Your task to perform on an android device: Open Maps and search for coffee Image 0: 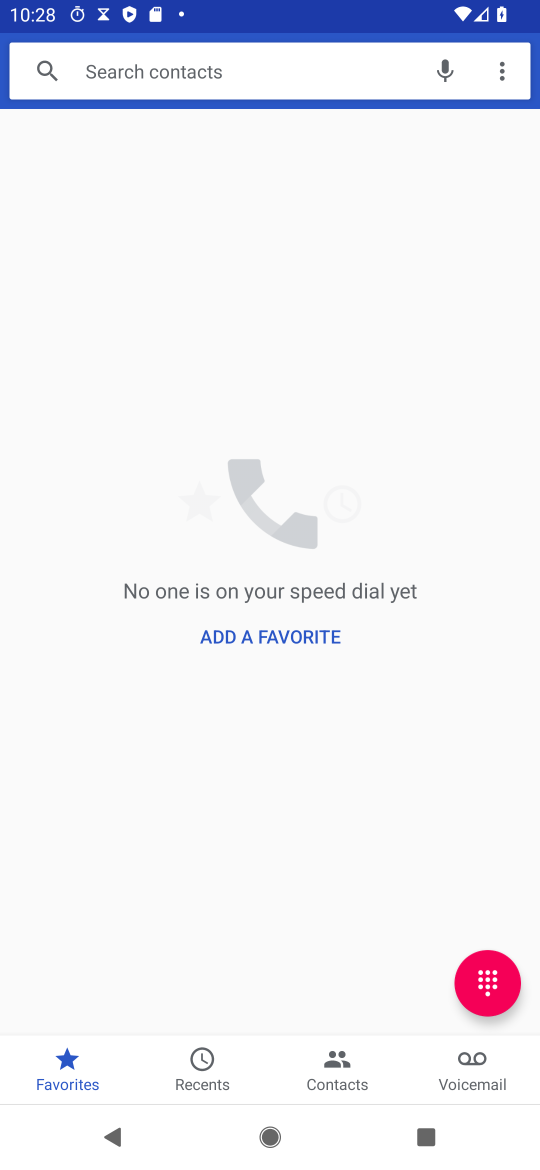
Step 0: press back button
Your task to perform on an android device: Open Maps and search for coffee Image 1: 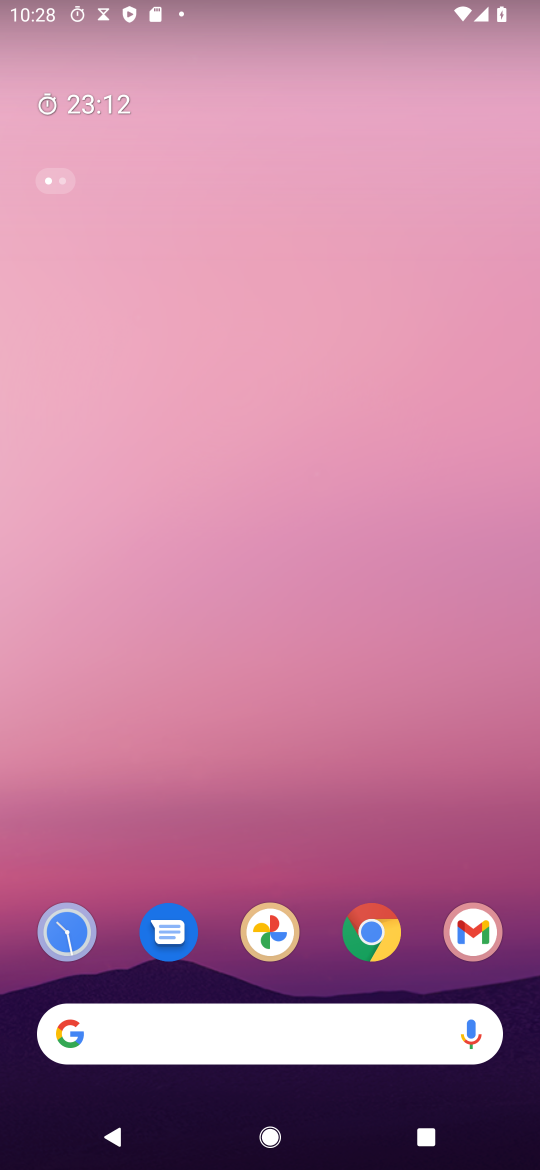
Step 1: drag from (297, 875) to (293, 14)
Your task to perform on an android device: Open Maps and search for coffee Image 2: 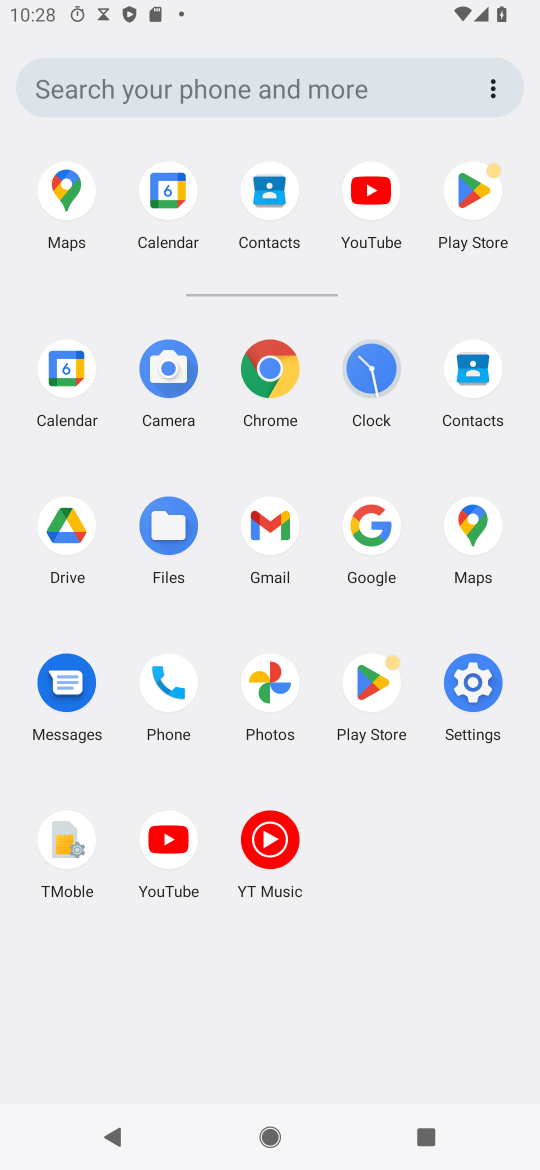
Step 2: click (75, 187)
Your task to perform on an android device: Open Maps and search for coffee Image 3: 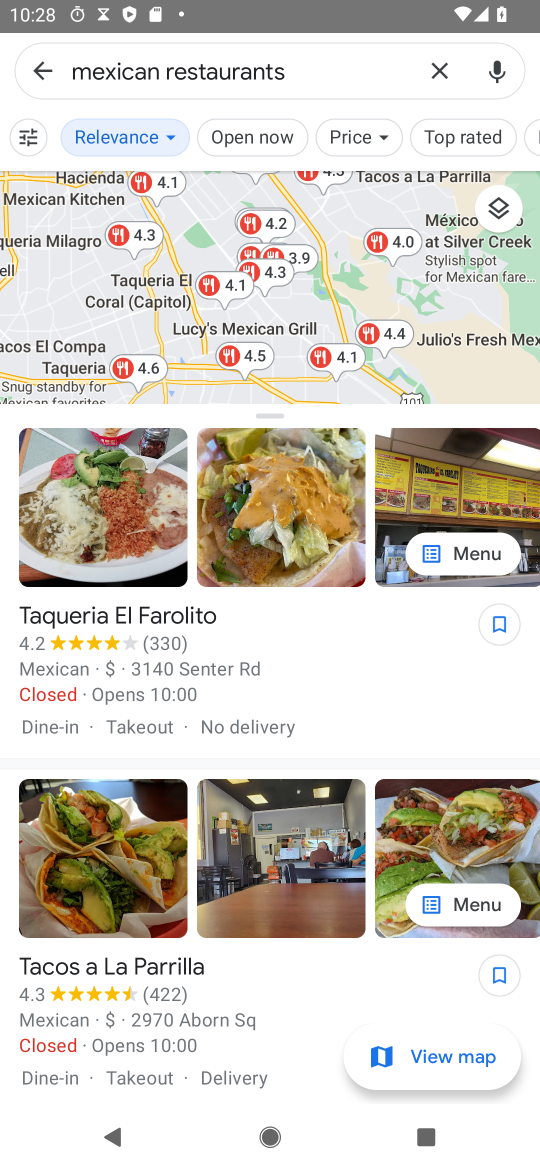
Step 3: click (442, 65)
Your task to perform on an android device: Open Maps and search for coffee Image 4: 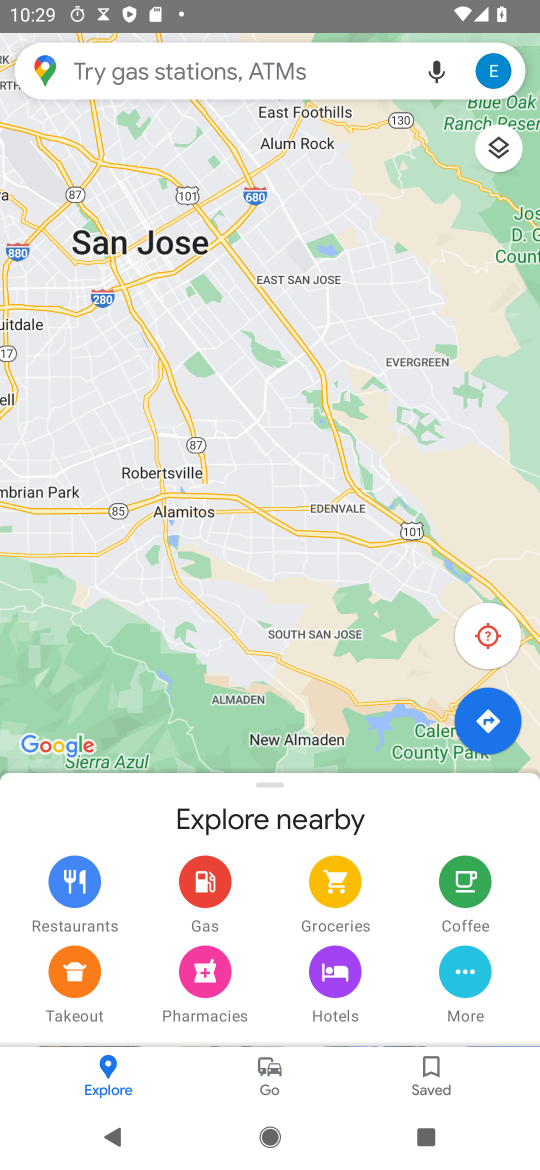
Step 4: click (206, 82)
Your task to perform on an android device: Open Maps and search for coffee Image 5: 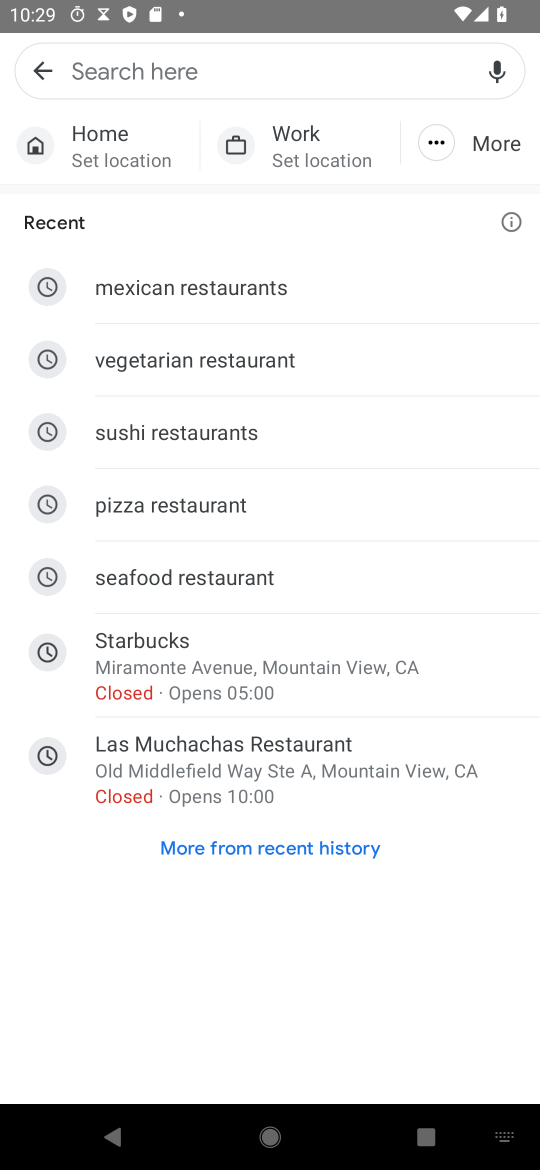
Step 5: type "coffee"
Your task to perform on an android device: Open Maps and search for coffee Image 6: 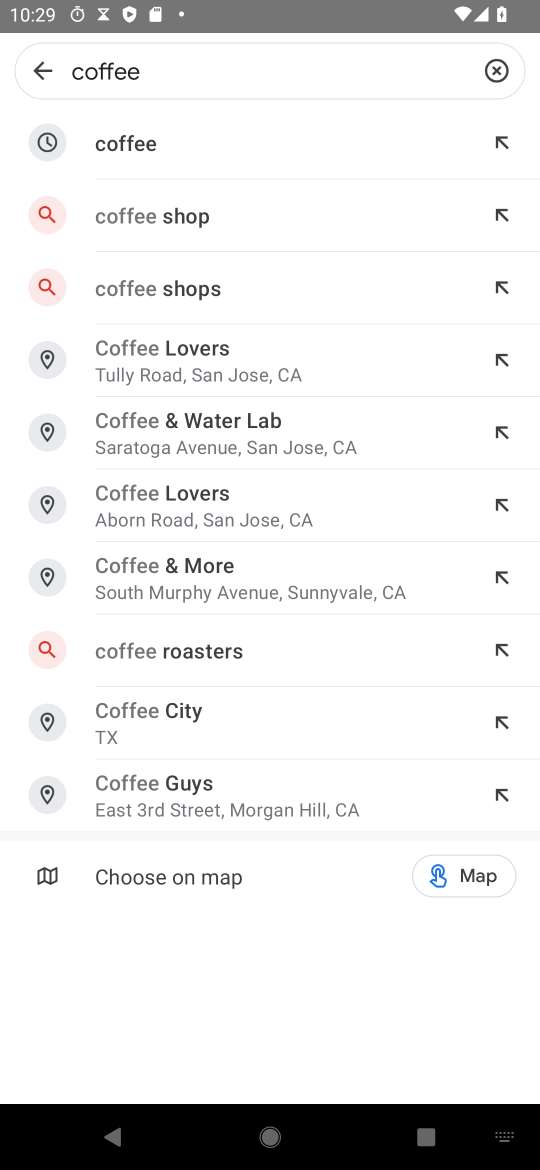
Step 6: click (223, 128)
Your task to perform on an android device: Open Maps and search for coffee Image 7: 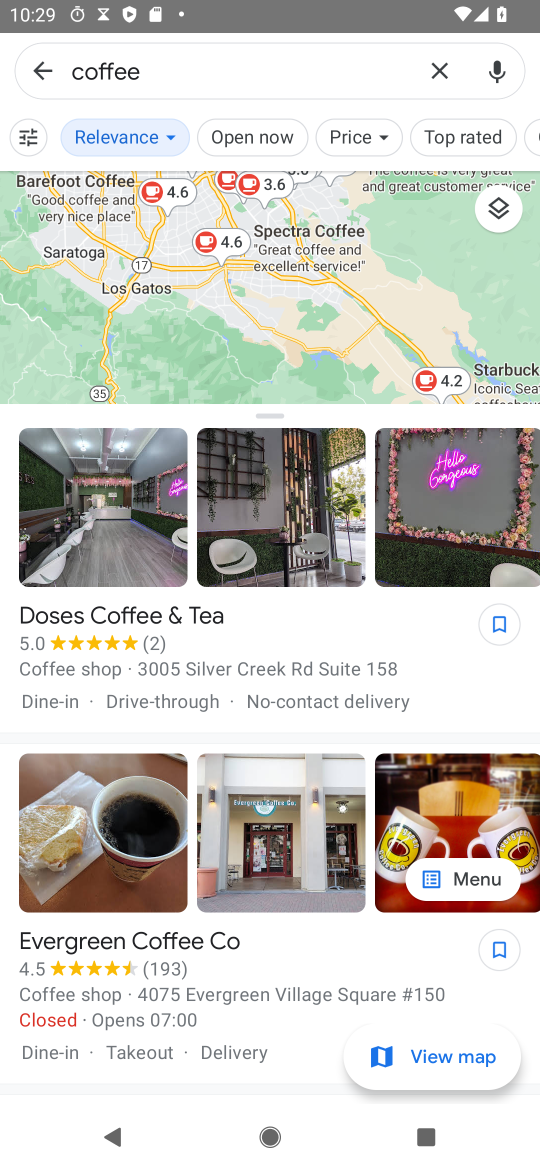
Step 7: task complete